Your task to perform on an android device: Is it going to rain this weekend? Image 0: 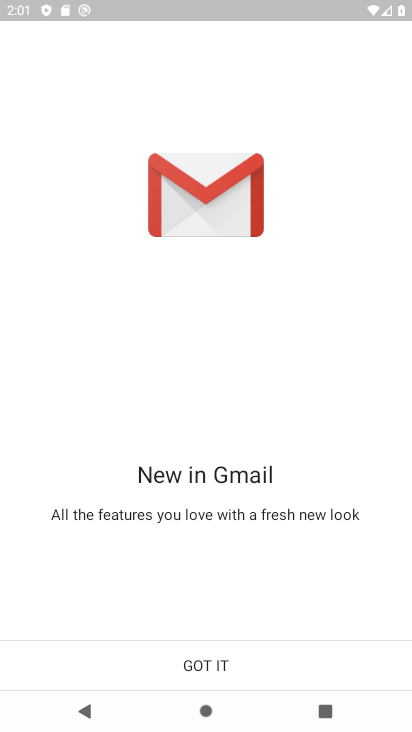
Step 0: press home button
Your task to perform on an android device: Is it going to rain this weekend? Image 1: 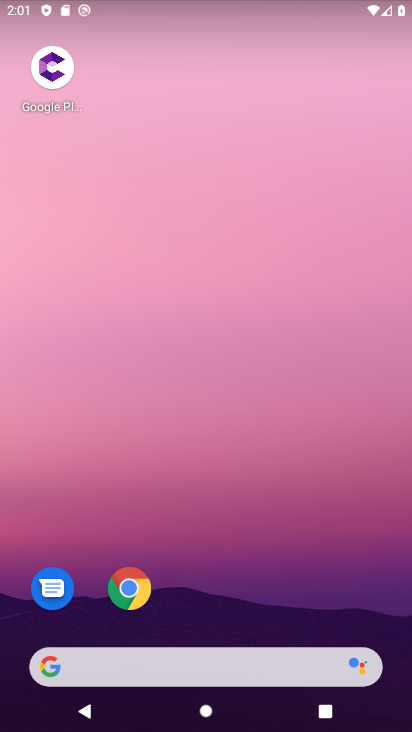
Step 1: drag from (293, 622) to (180, 158)
Your task to perform on an android device: Is it going to rain this weekend? Image 2: 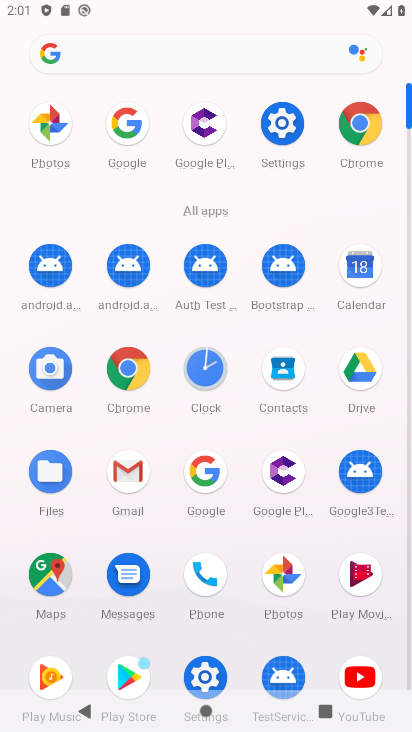
Step 2: click (357, 127)
Your task to perform on an android device: Is it going to rain this weekend? Image 3: 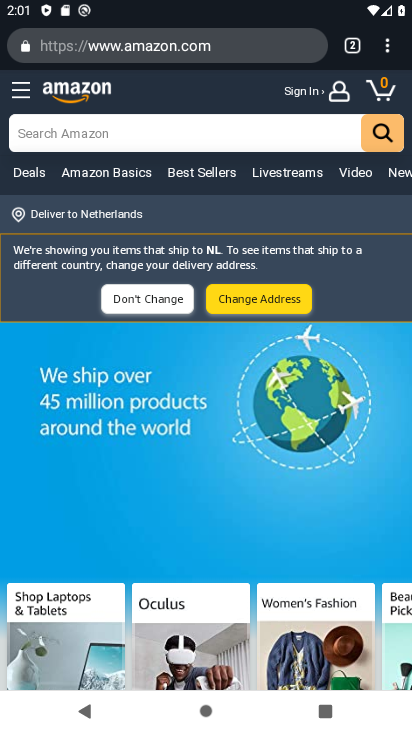
Step 3: click (246, 49)
Your task to perform on an android device: Is it going to rain this weekend? Image 4: 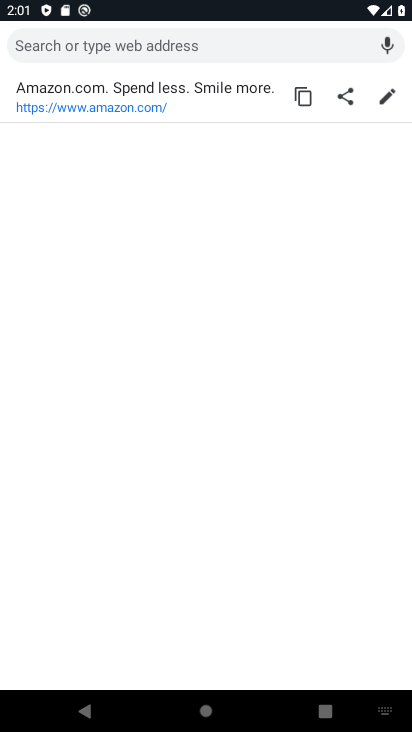
Step 4: type "Is it going to rain this weekend?"
Your task to perform on an android device: Is it going to rain this weekend? Image 5: 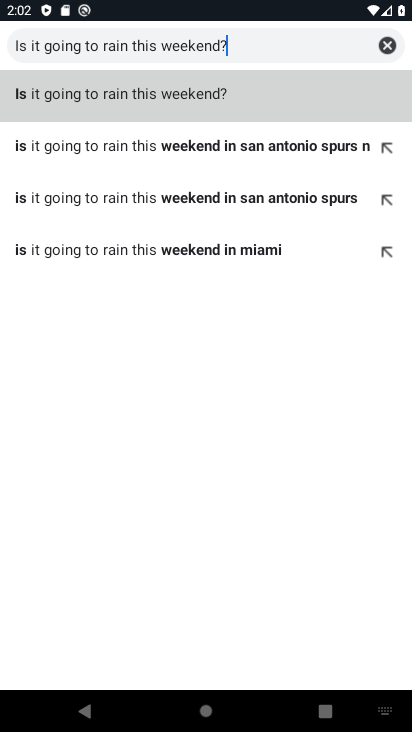
Step 5: click (246, 95)
Your task to perform on an android device: Is it going to rain this weekend? Image 6: 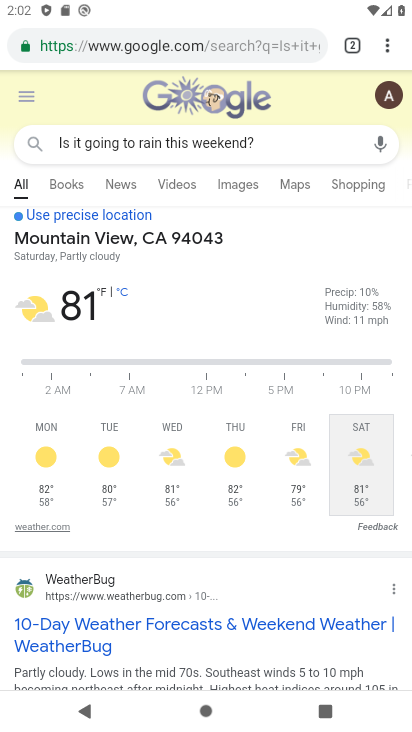
Step 6: task complete